Your task to perform on an android device: Open Yahoo.com Image 0: 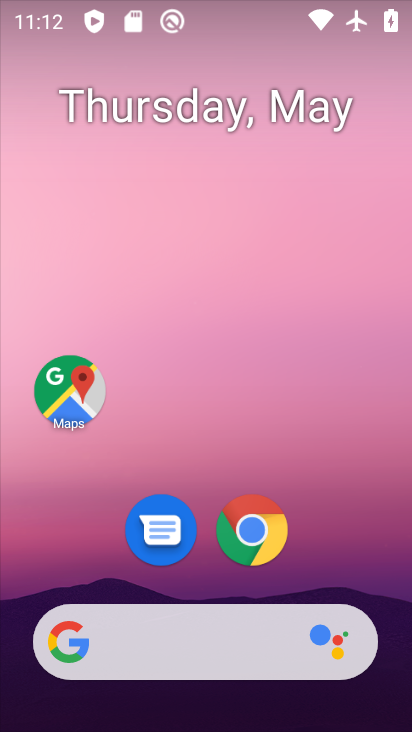
Step 0: click (250, 538)
Your task to perform on an android device: Open Yahoo.com Image 1: 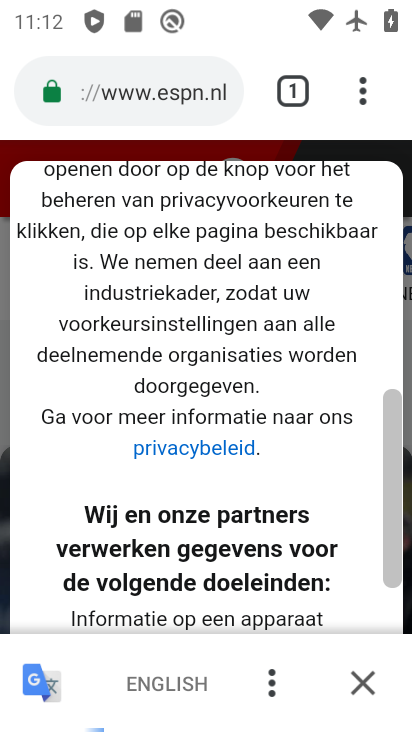
Step 1: click (156, 68)
Your task to perform on an android device: Open Yahoo.com Image 2: 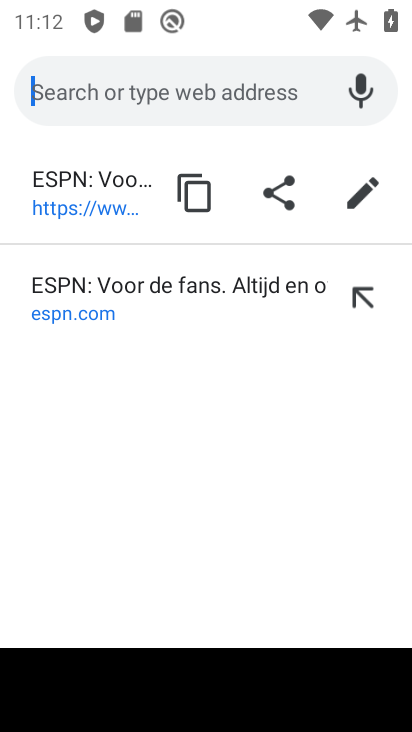
Step 2: type "yahoo.com"
Your task to perform on an android device: Open Yahoo.com Image 3: 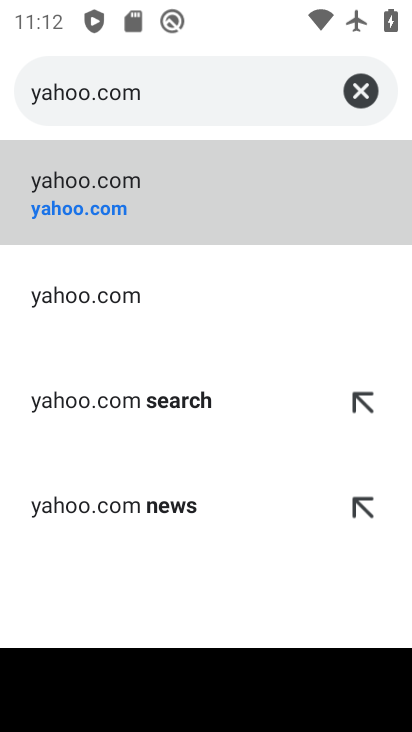
Step 3: click (111, 201)
Your task to perform on an android device: Open Yahoo.com Image 4: 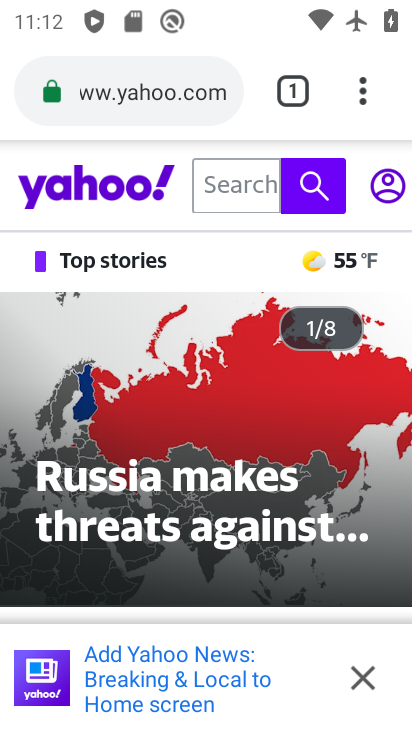
Step 4: task complete